Your task to perform on an android device: Go to privacy settings Image 0: 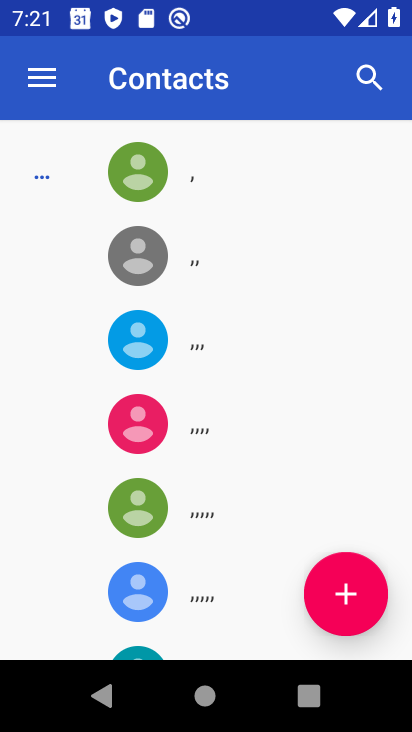
Step 0: press home button
Your task to perform on an android device: Go to privacy settings Image 1: 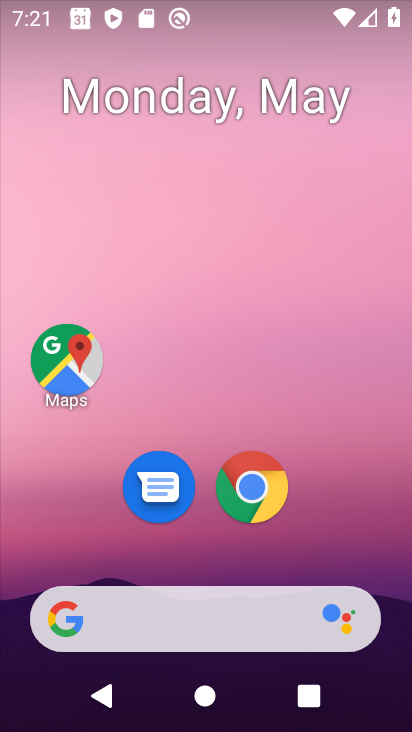
Step 1: drag from (211, 664) to (209, 288)
Your task to perform on an android device: Go to privacy settings Image 2: 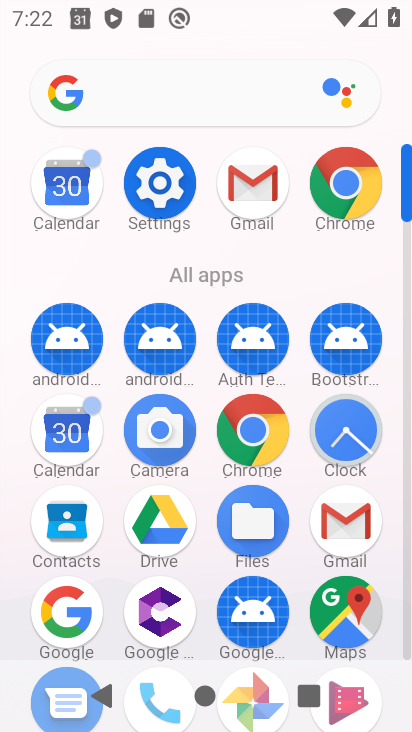
Step 2: click (158, 179)
Your task to perform on an android device: Go to privacy settings Image 3: 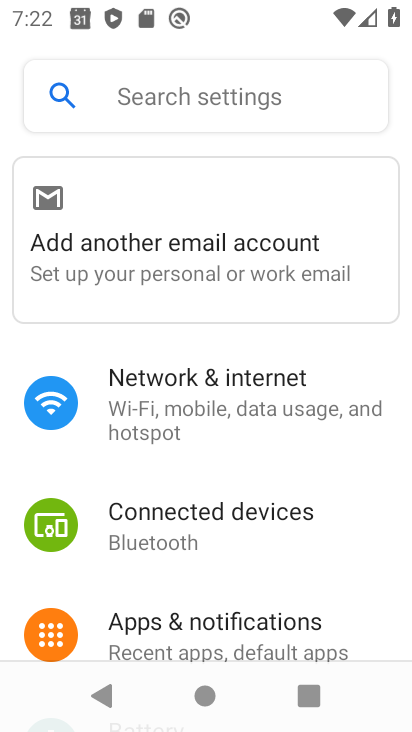
Step 3: click (179, 77)
Your task to perform on an android device: Go to privacy settings Image 4: 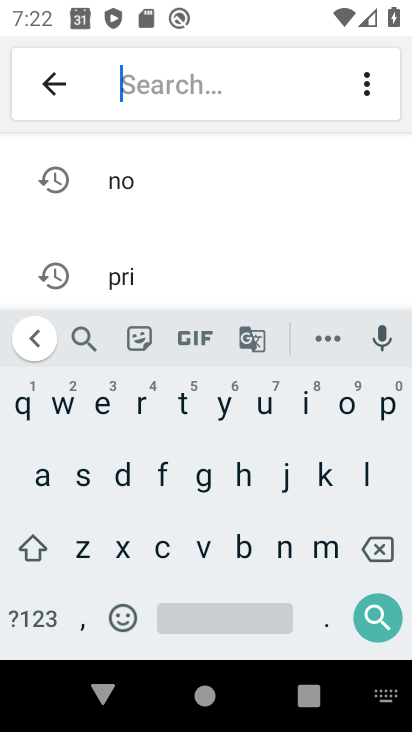
Step 4: click (130, 275)
Your task to perform on an android device: Go to privacy settings Image 5: 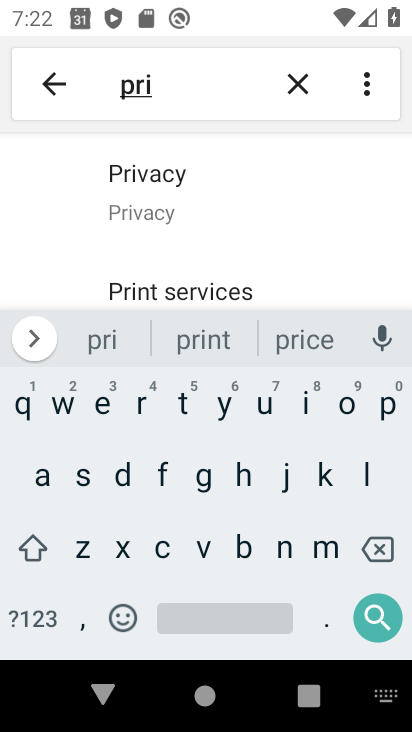
Step 5: click (176, 186)
Your task to perform on an android device: Go to privacy settings Image 6: 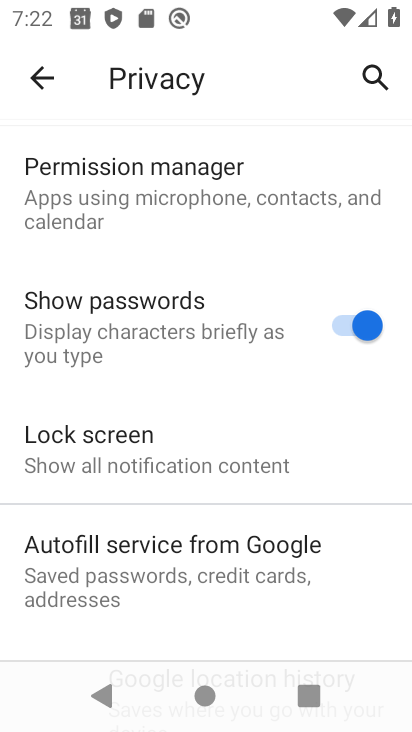
Step 6: task complete